Your task to perform on an android device: Open Yahoo.com Image 0: 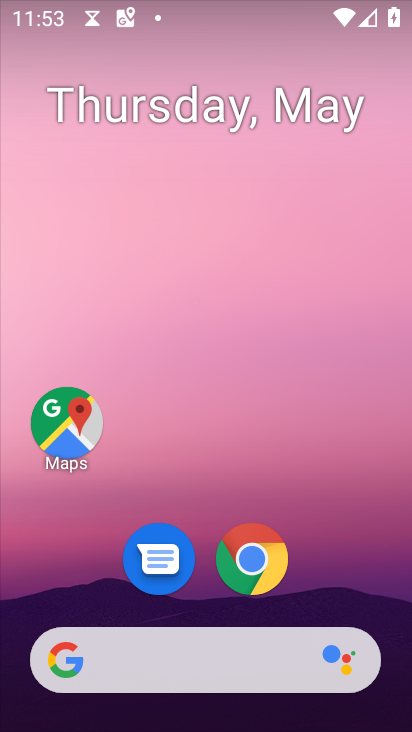
Step 0: click (256, 555)
Your task to perform on an android device: Open Yahoo.com Image 1: 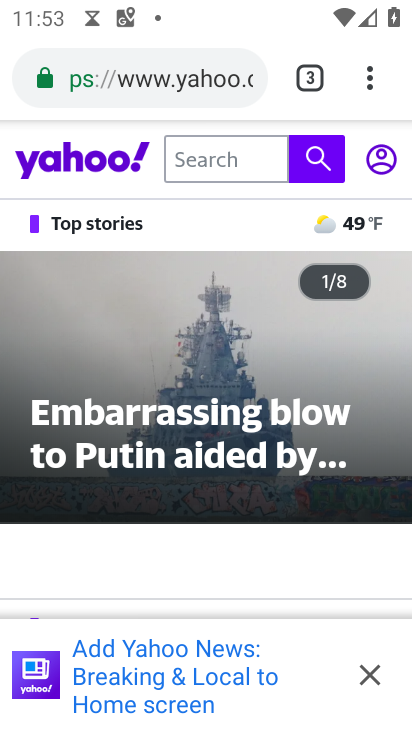
Step 1: task complete